Your task to perform on an android device: add a contact in the contacts app Image 0: 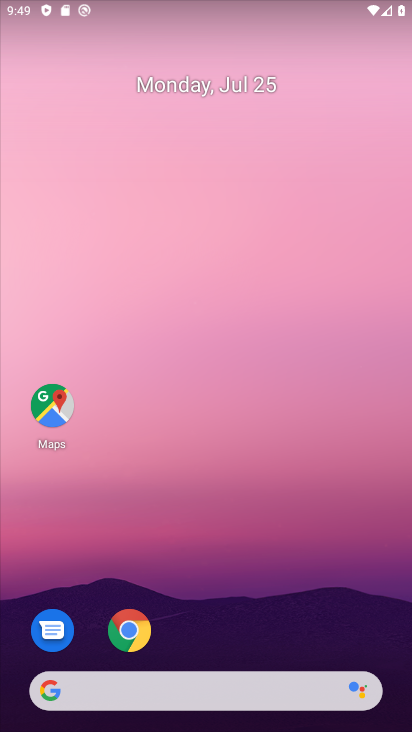
Step 0: drag from (257, 641) to (405, 411)
Your task to perform on an android device: add a contact in the contacts app Image 1: 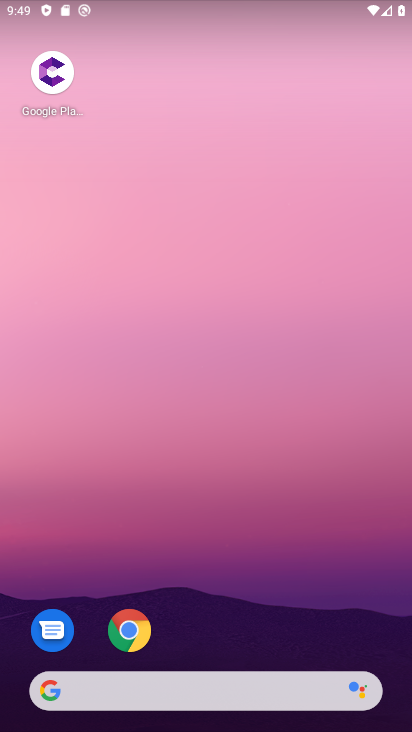
Step 1: drag from (181, 650) to (289, 704)
Your task to perform on an android device: add a contact in the contacts app Image 2: 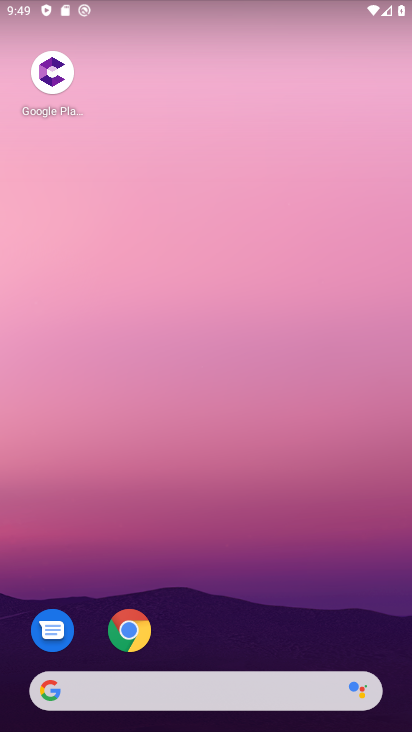
Step 2: drag from (184, 661) to (243, 20)
Your task to perform on an android device: add a contact in the contacts app Image 3: 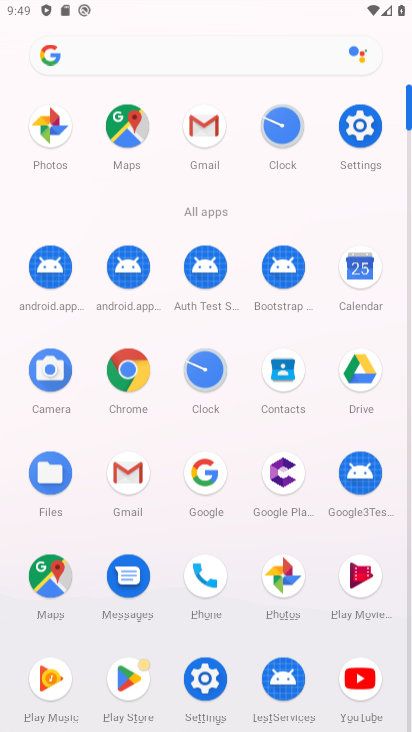
Step 3: click (204, 575)
Your task to perform on an android device: add a contact in the contacts app Image 4: 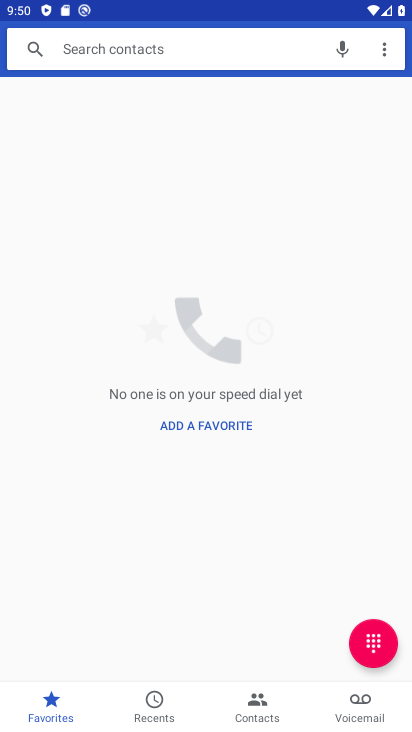
Step 4: click (274, 706)
Your task to perform on an android device: add a contact in the contacts app Image 5: 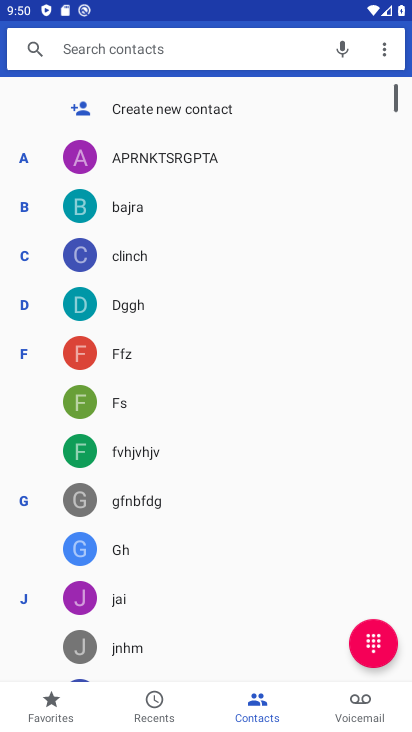
Step 5: click (119, 118)
Your task to perform on an android device: add a contact in the contacts app Image 6: 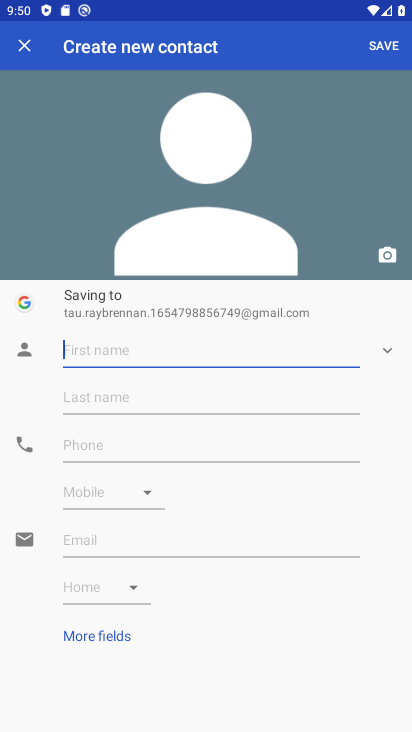
Step 6: type "gg"
Your task to perform on an android device: add a contact in the contacts app Image 7: 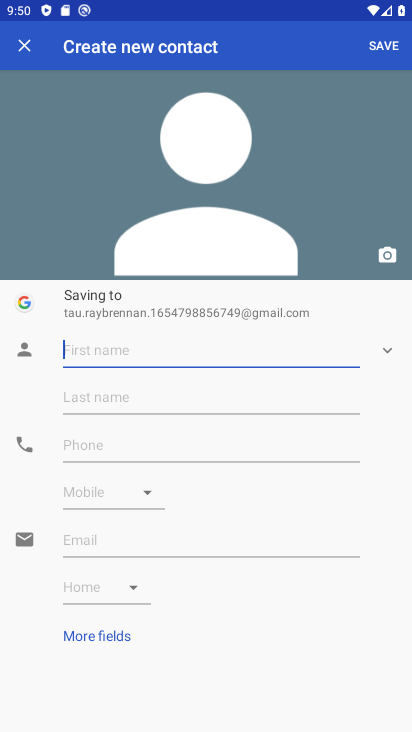
Step 7: click (139, 452)
Your task to perform on an android device: add a contact in the contacts app Image 8: 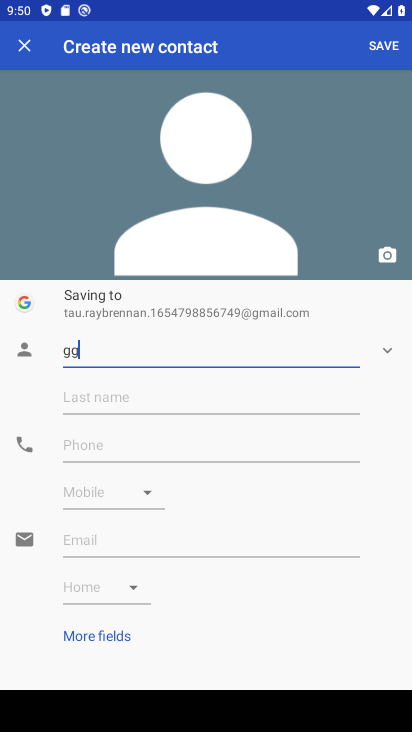
Step 8: type ""
Your task to perform on an android device: add a contact in the contacts app Image 9: 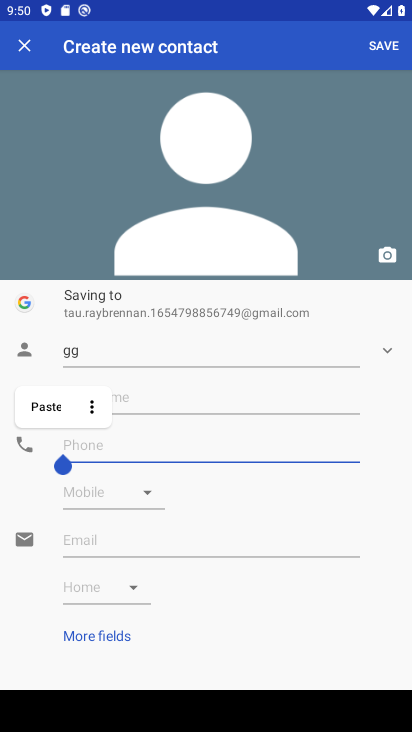
Step 9: type "5335"
Your task to perform on an android device: add a contact in the contacts app Image 10: 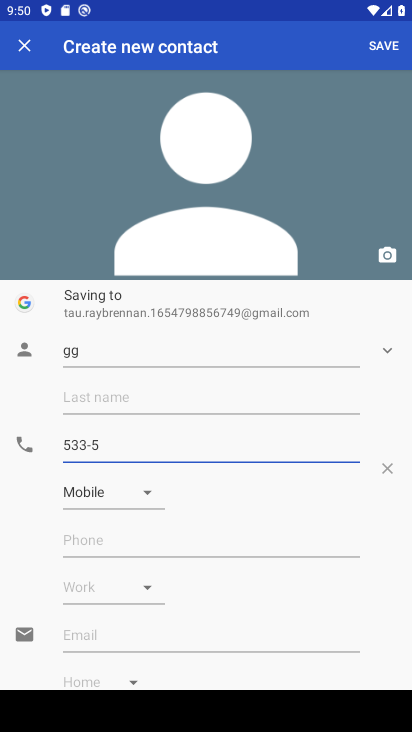
Step 10: click (377, 53)
Your task to perform on an android device: add a contact in the contacts app Image 11: 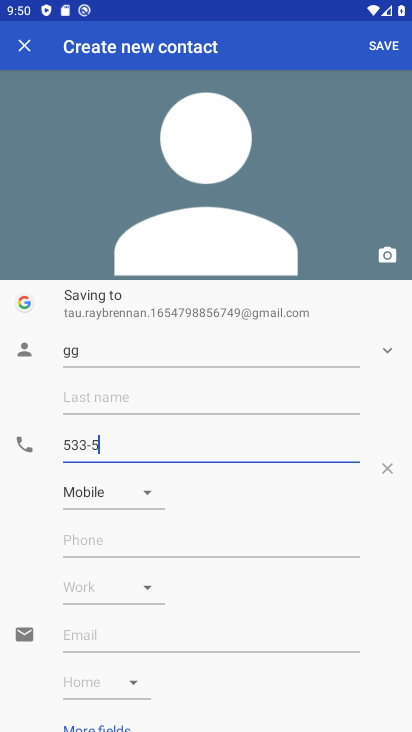
Step 11: task complete